Your task to perform on an android device: install app "Yahoo Mail" Image 0: 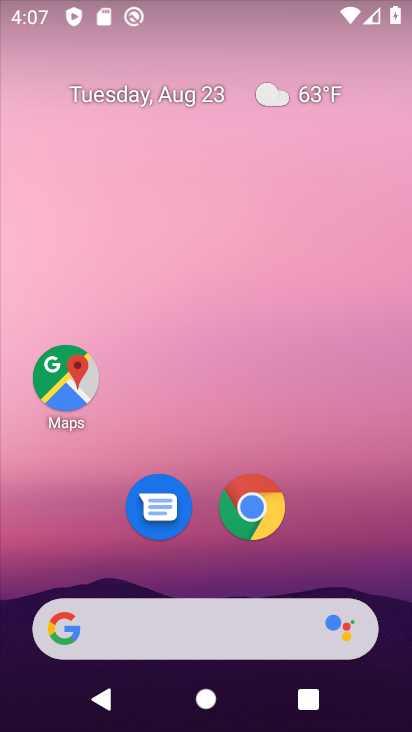
Step 0: drag from (205, 563) to (198, 23)
Your task to perform on an android device: install app "Yahoo Mail" Image 1: 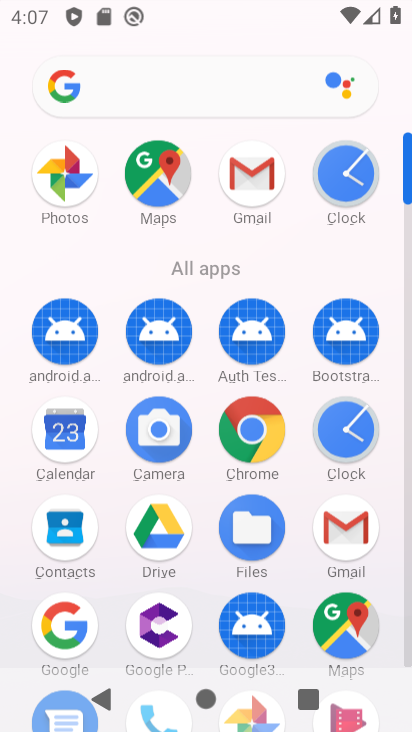
Step 1: drag from (198, 560) to (239, 26)
Your task to perform on an android device: install app "Yahoo Mail" Image 2: 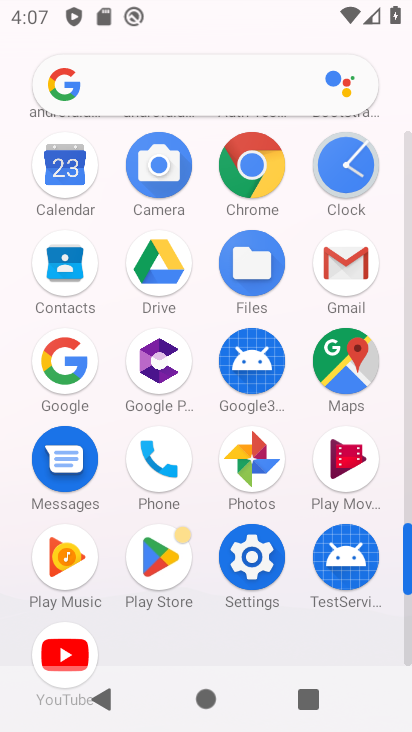
Step 2: click (175, 549)
Your task to perform on an android device: install app "Yahoo Mail" Image 3: 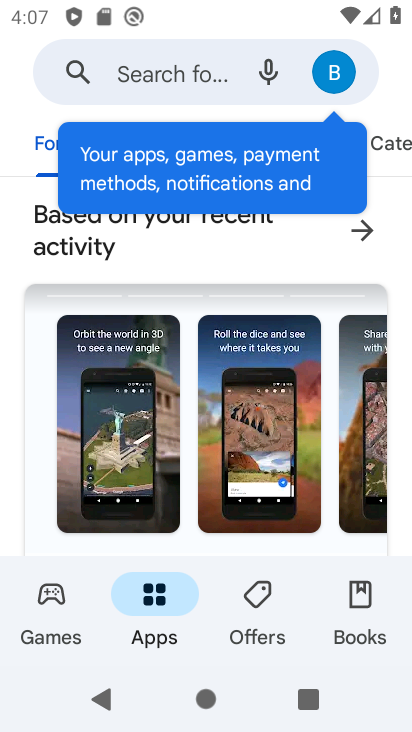
Step 3: click (166, 92)
Your task to perform on an android device: install app "Yahoo Mail" Image 4: 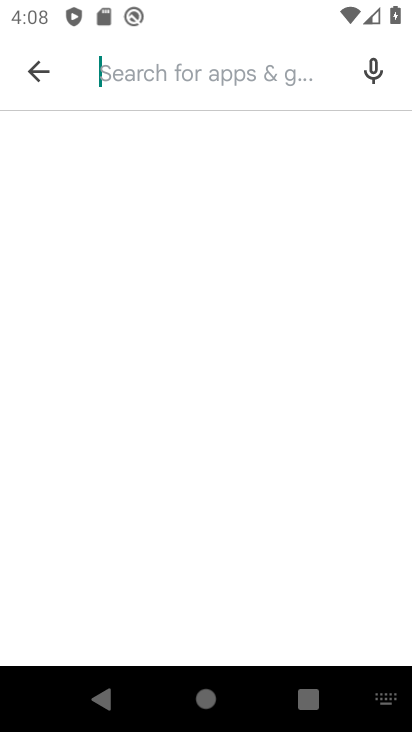
Step 4: type "yahoo mail"
Your task to perform on an android device: install app "Yahoo Mail" Image 5: 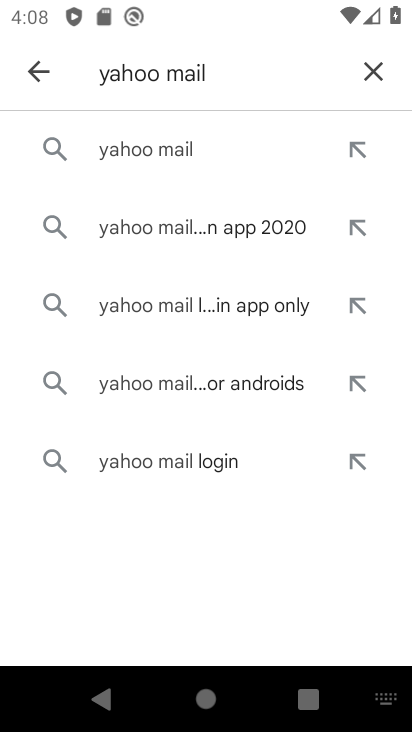
Step 5: click (206, 160)
Your task to perform on an android device: install app "Yahoo Mail" Image 6: 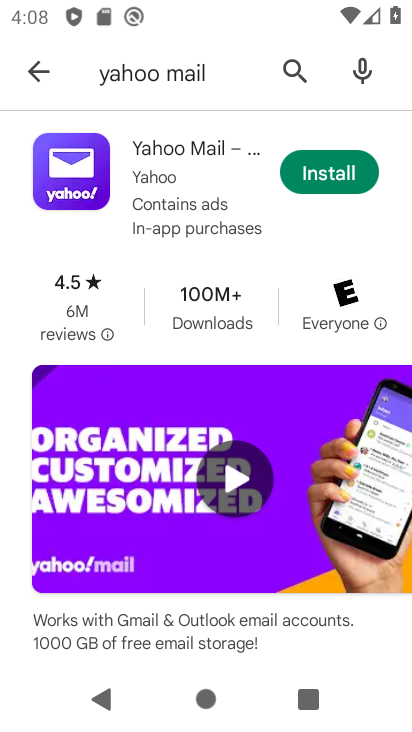
Step 6: click (326, 183)
Your task to perform on an android device: install app "Yahoo Mail" Image 7: 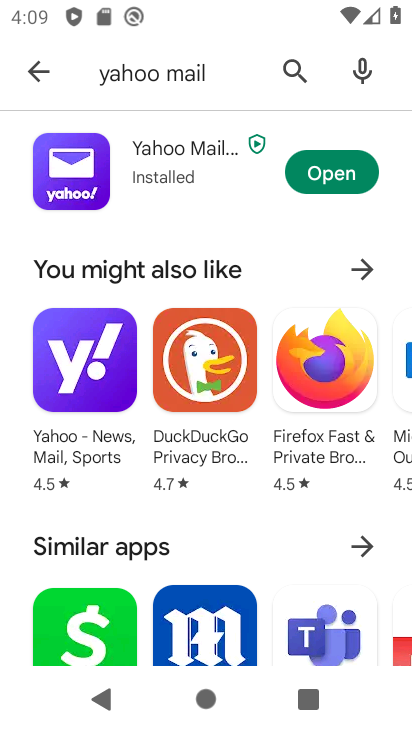
Step 7: task complete